Your task to perform on an android device: turn off wifi Image 0: 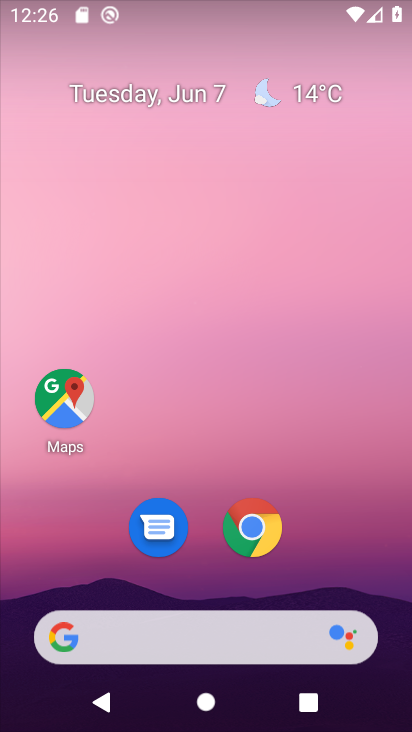
Step 0: drag from (321, 552) to (227, 35)
Your task to perform on an android device: turn off wifi Image 1: 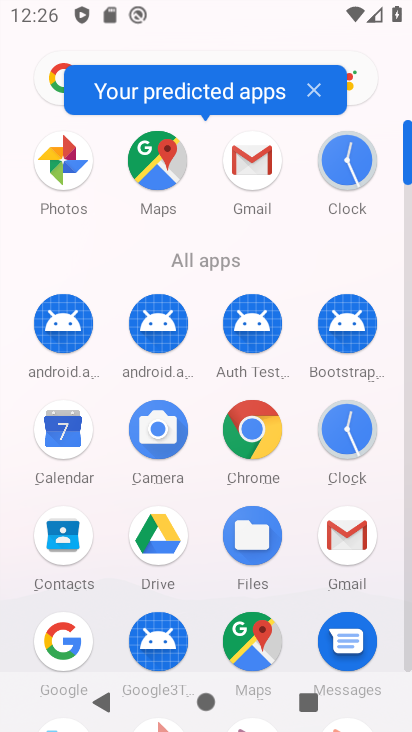
Step 1: drag from (4, 558) to (16, 187)
Your task to perform on an android device: turn off wifi Image 2: 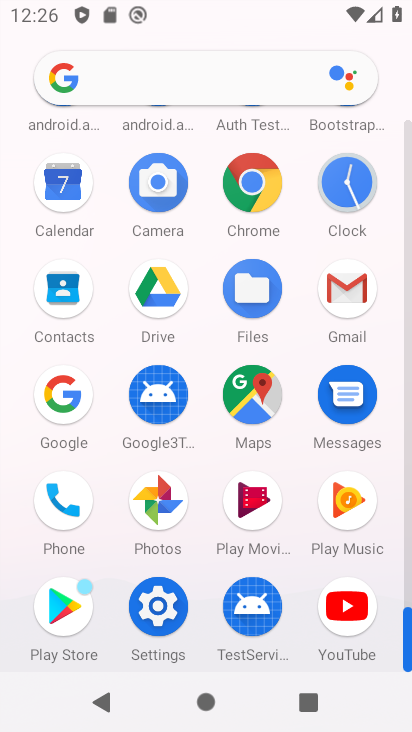
Step 2: click (157, 601)
Your task to perform on an android device: turn off wifi Image 3: 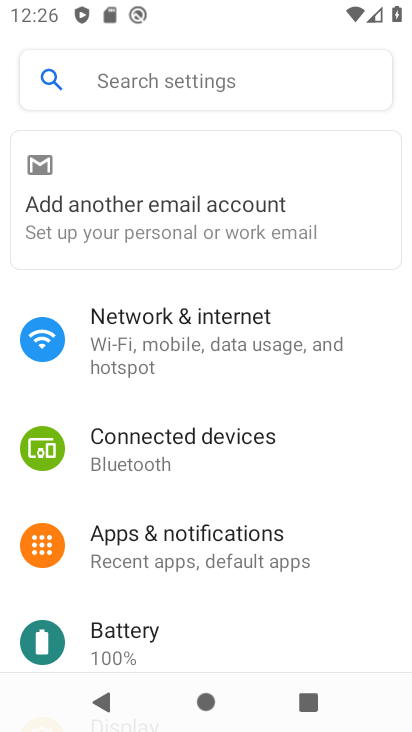
Step 3: click (245, 170)
Your task to perform on an android device: turn off wifi Image 4: 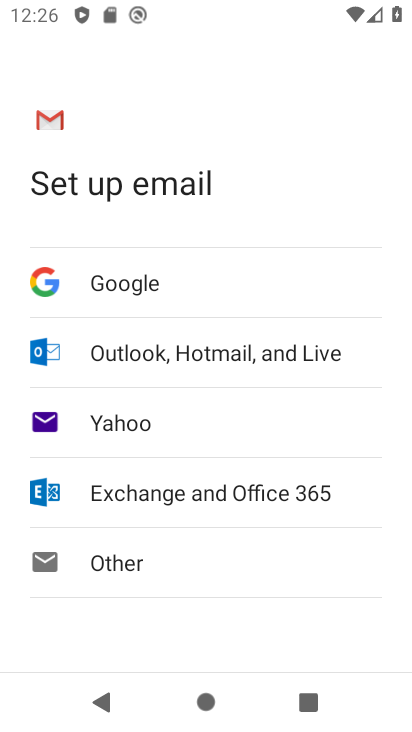
Step 4: press back button
Your task to perform on an android device: turn off wifi Image 5: 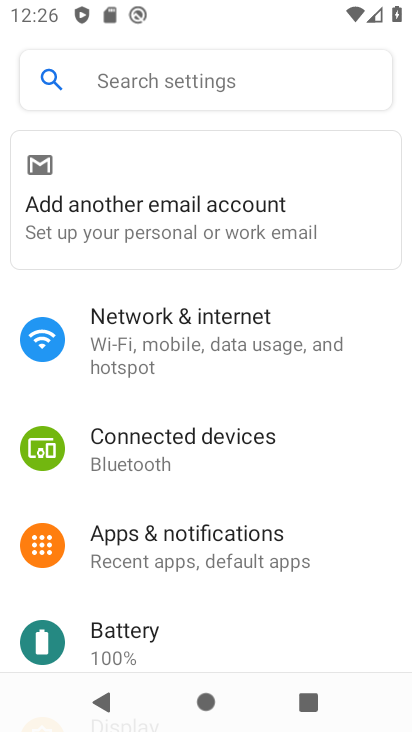
Step 5: click (167, 344)
Your task to perform on an android device: turn off wifi Image 6: 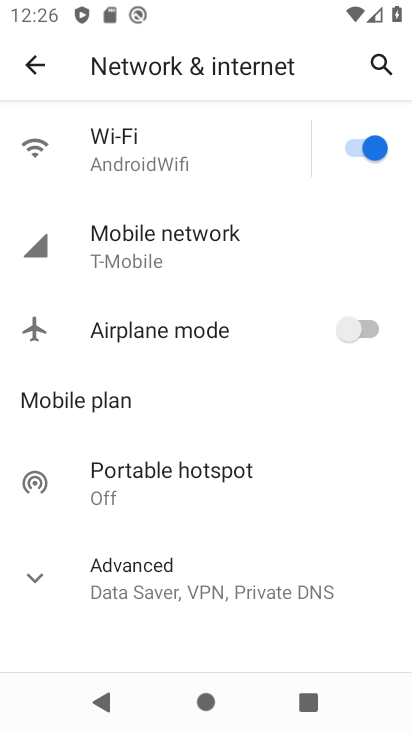
Step 6: click (365, 138)
Your task to perform on an android device: turn off wifi Image 7: 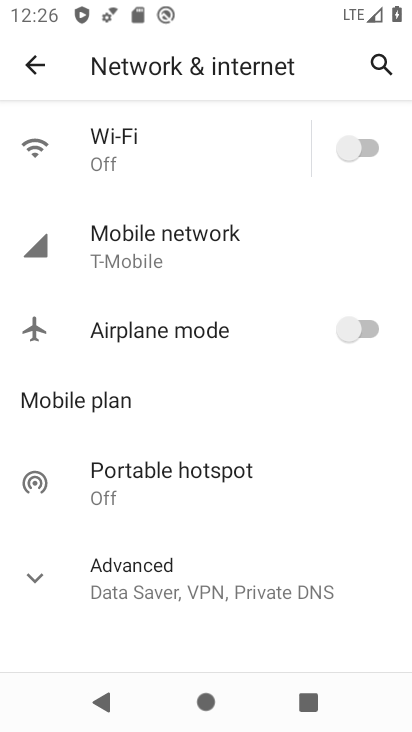
Step 7: click (24, 573)
Your task to perform on an android device: turn off wifi Image 8: 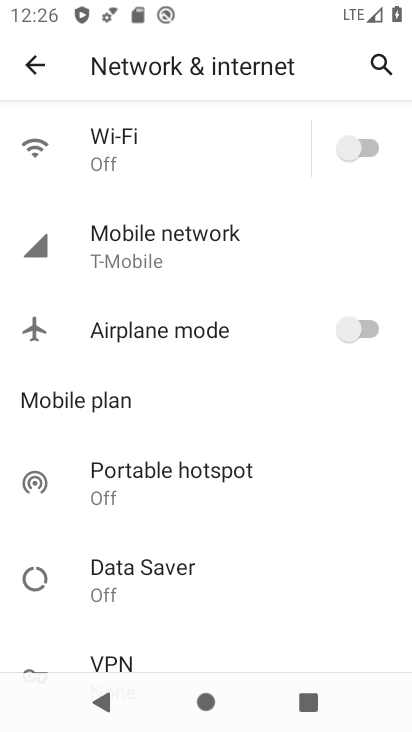
Step 8: task complete